Your task to perform on an android device: see tabs open on other devices in the chrome app Image 0: 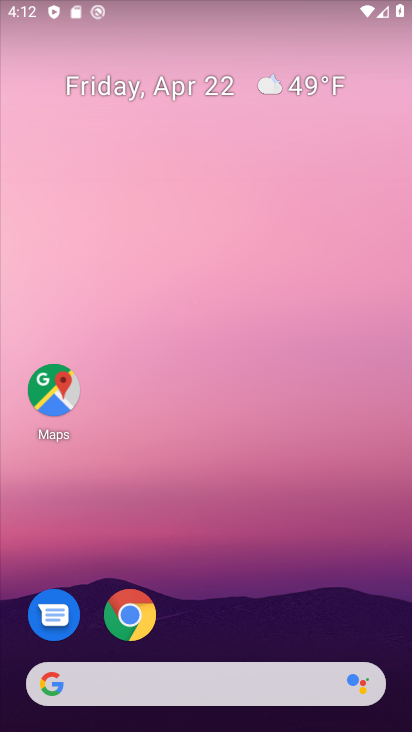
Step 0: click (137, 609)
Your task to perform on an android device: see tabs open on other devices in the chrome app Image 1: 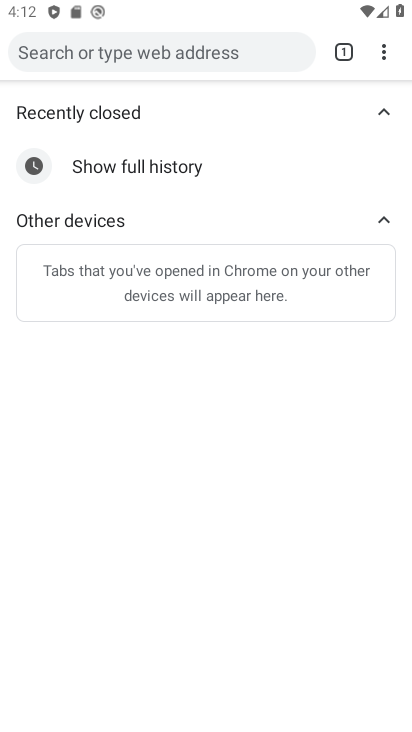
Step 1: task complete